Your task to perform on an android device: change the clock display to show seconds Image 0: 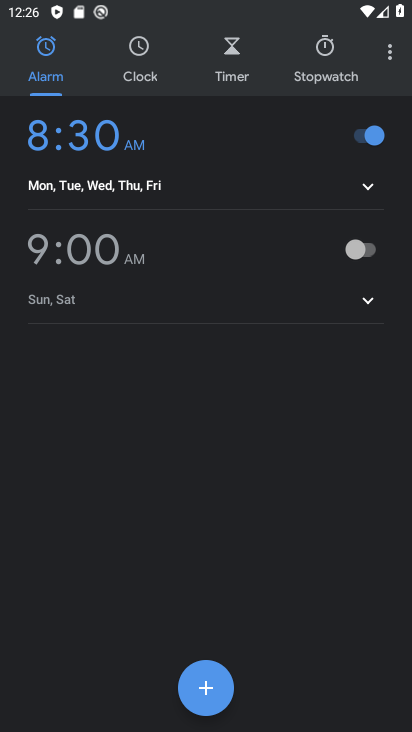
Step 0: click (390, 60)
Your task to perform on an android device: change the clock display to show seconds Image 1: 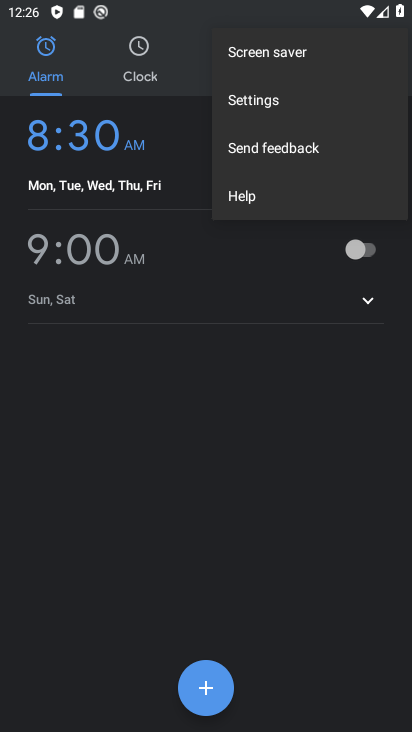
Step 1: click (301, 108)
Your task to perform on an android device: change the clock display to show seconds Image 2: 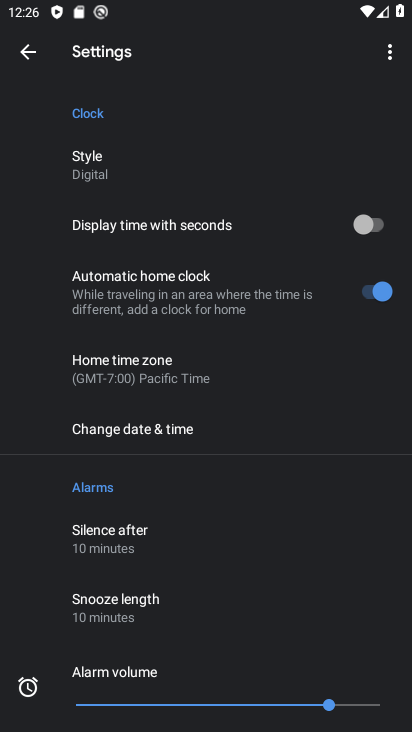
Step 2: click (366, 226)
Your task to perform on an android device: change the clock display to show seconds Image 3: 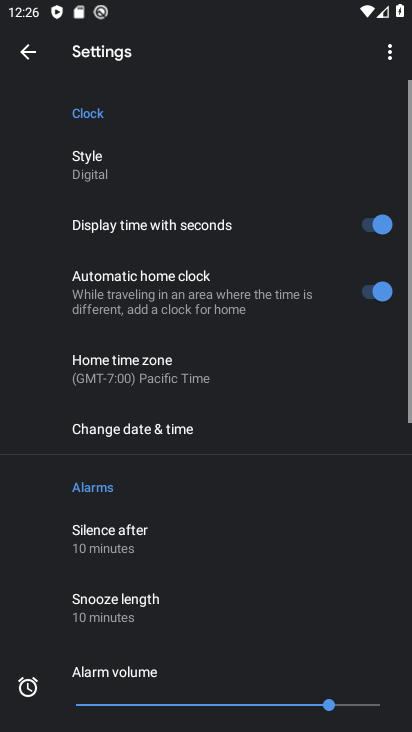
Step 3: task complete